Your task to perform on an android device: What's the weather? Image 0: 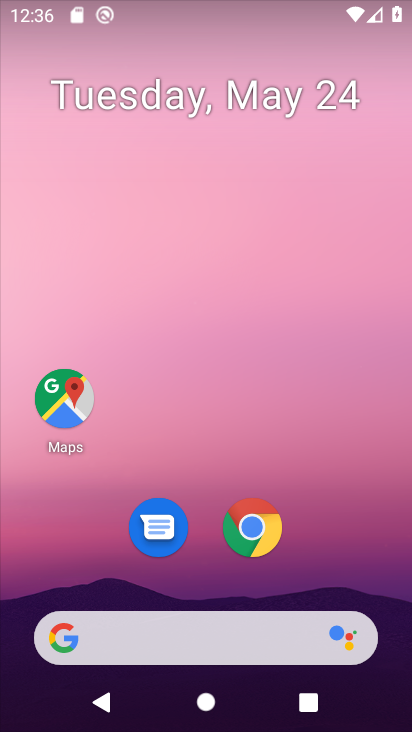
Step 0: click (177, 636)
Your task to perform on an android device: What's the weather? Image 1: 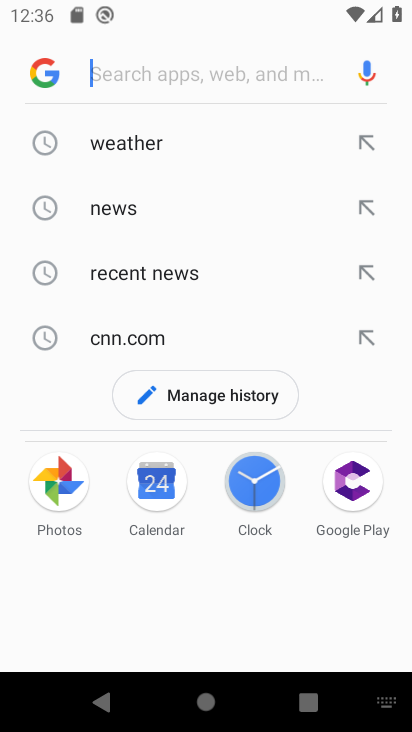
Step 1: click (125, 139)
Your task to perform on an android device: What's the weather? Image 2: 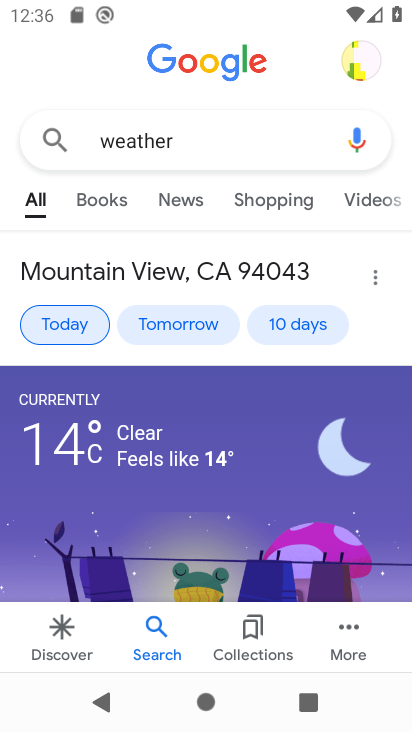
Step 2: task complete